Your task to perform on an android device: change your default location settings in chrome Image 0: 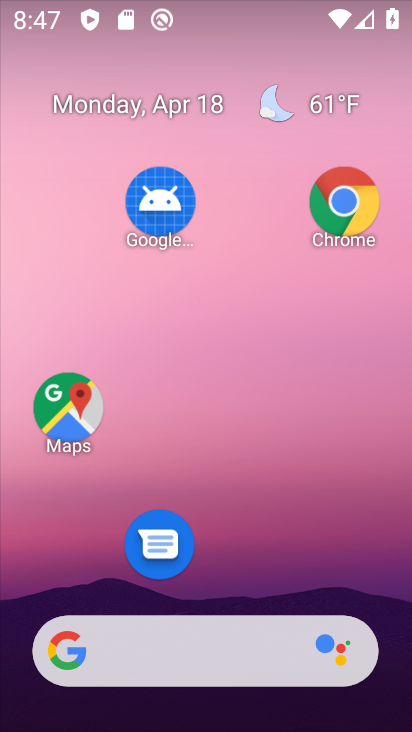
Step 0: click (352, 213)
Your task to perform on an android device: change your default location settings in chrome Image 1: 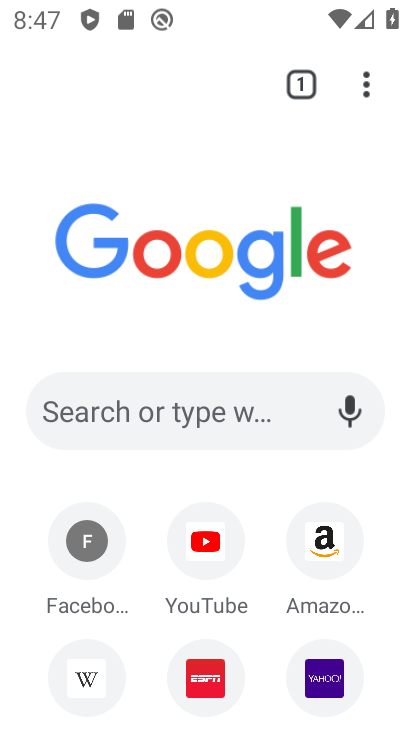
Step 1: click (362, 90)
Your task to perform on an android device: change your default location settings in chrome Image 2: 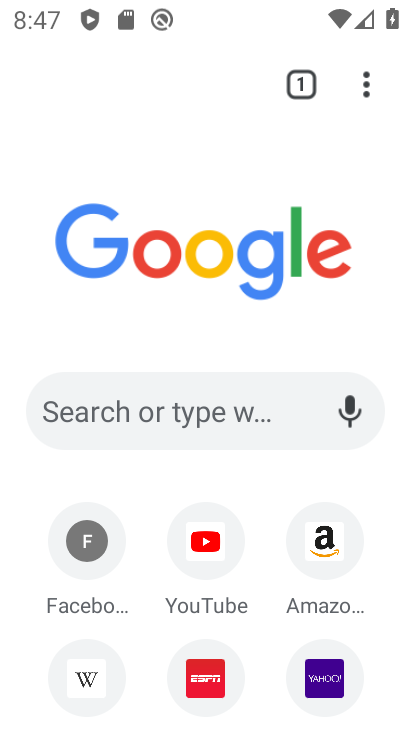
Step 2: click (372, 84)
Your task to perform on an android device: change your default location settings in chrome Image 3: 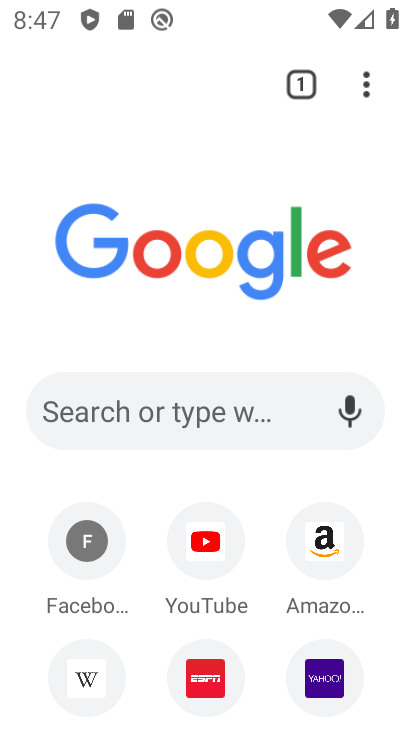
Step 3: click (362, 87)
Your task to perform on an android device: change your default location settings in chrome Image 4: 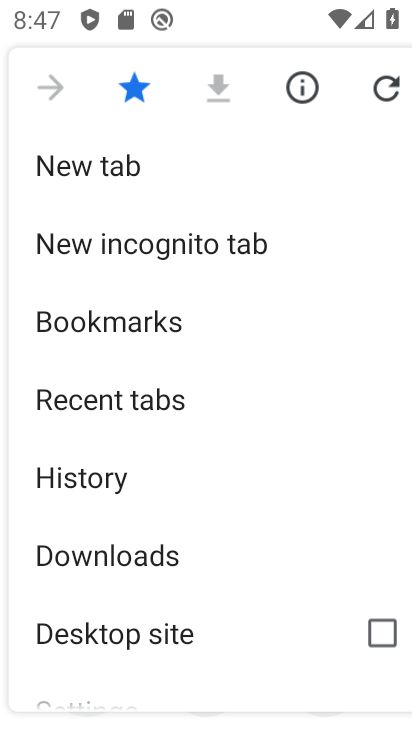
Step 4: drag from (216, 575) to (156, 167)
Your task to perform on an android device: change your default location settings in chrome Image 5: 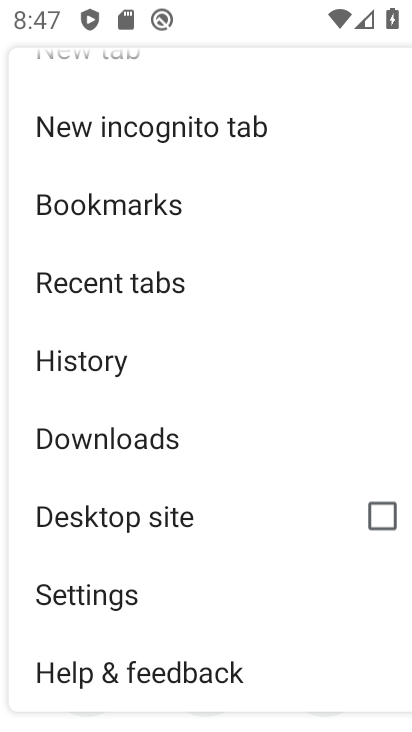
Step 5: click (103, 581)
Your task to perform on an android device: change your default location settings in chrome Image 6: 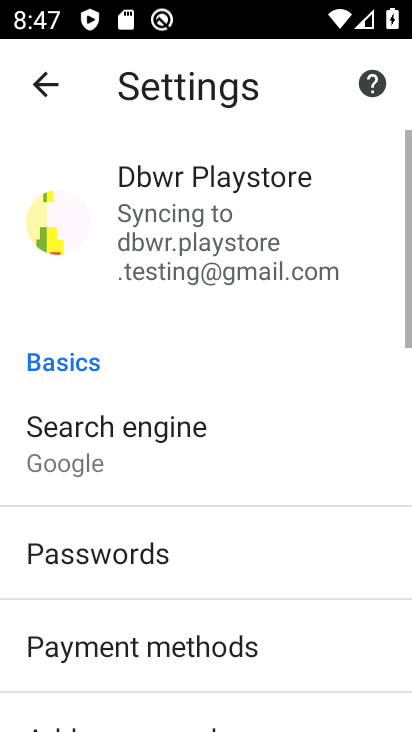
Step 6: drag from (153, 595) to (121, 150)
Your task to perform on an android device: change your default location settings in chrome Image 7: 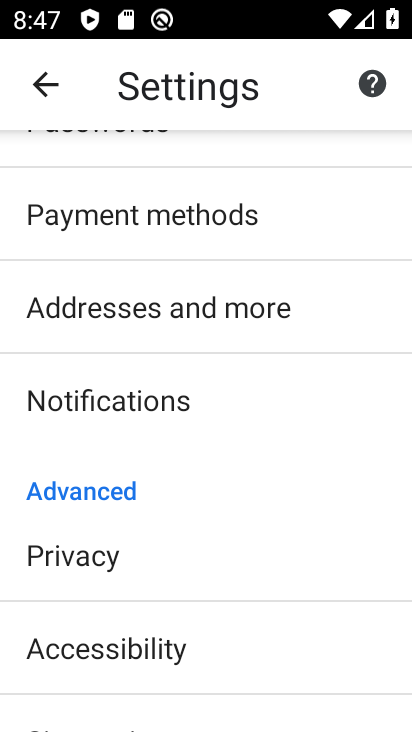
Step 7: drag from (120, 666) to (88, 192)
Your task to perform on an android device: change your default location settings in chrome Image 8: 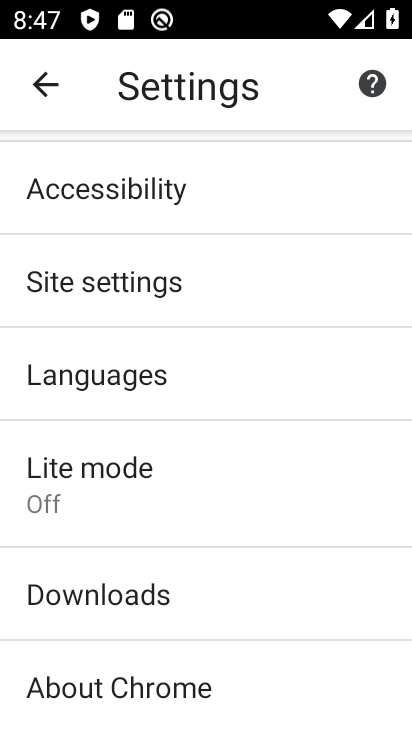
Step 8: click (92, 299)
Your task to perform on an android device: change your default location settings in chrome Image 9: 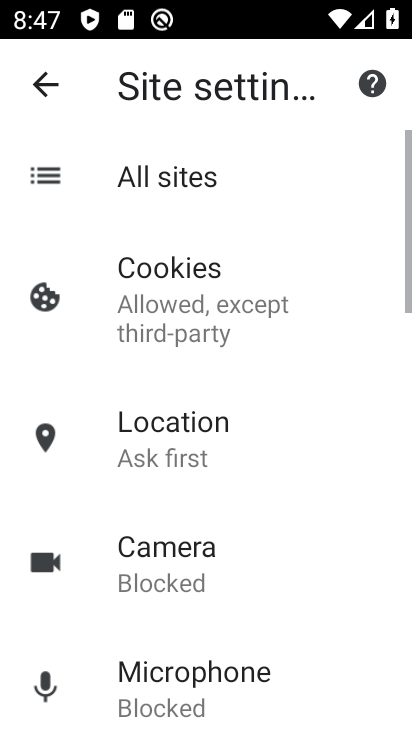
Step 9: click (152, 444)
Your task to perform on an android device: change your default location settings in chrome Image 10: 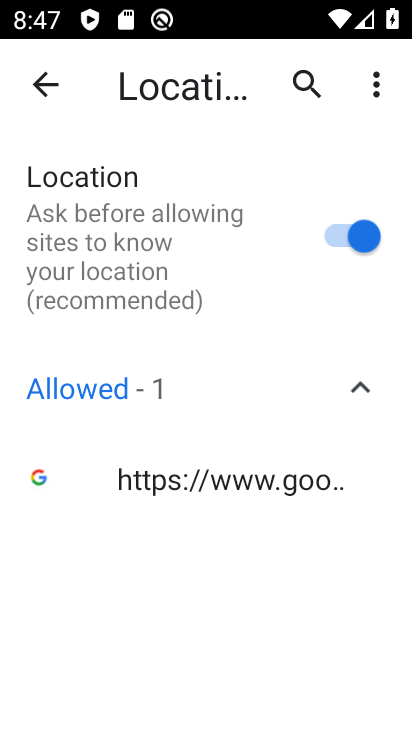
Step 10: task complete